Your task to perform on an android device: open a new tab in the chrome app Image 0: 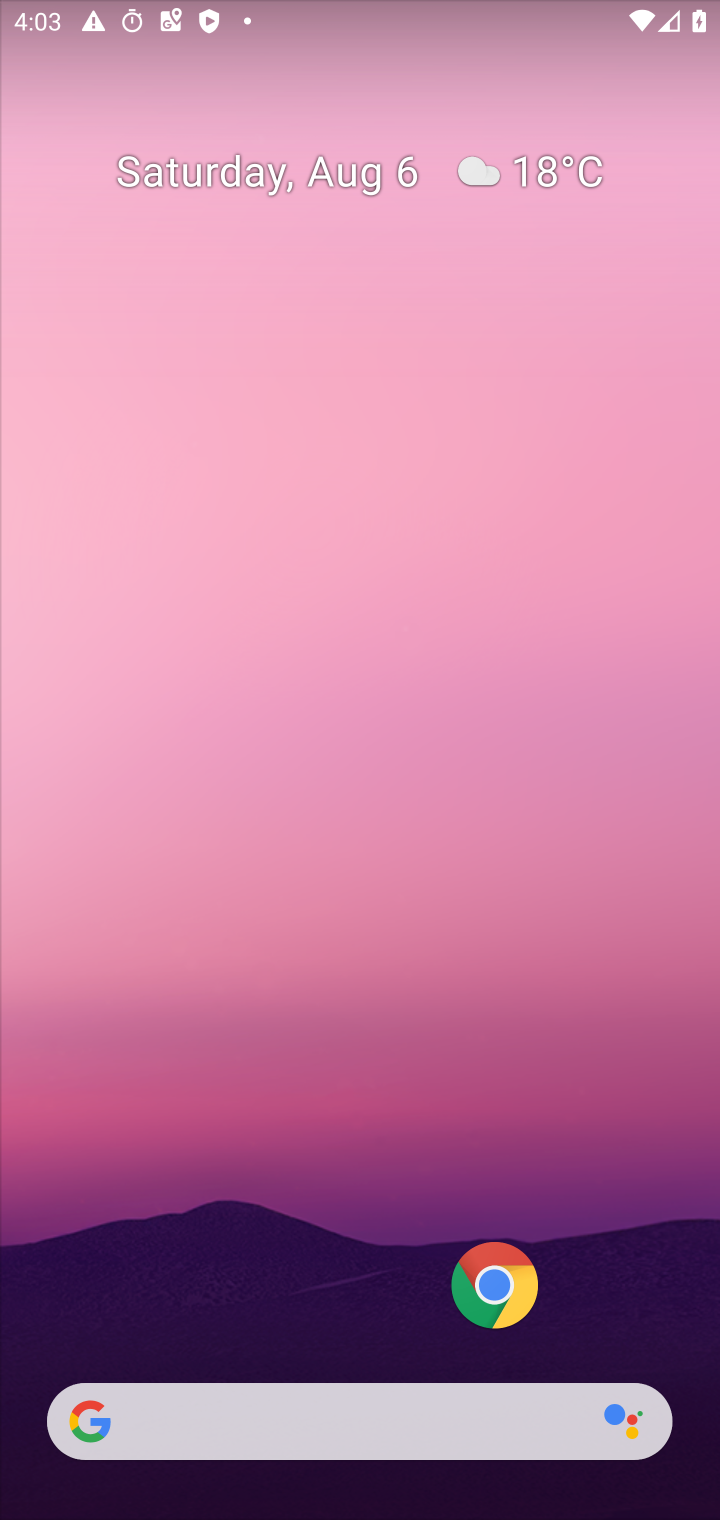
Step 0: click (494, 1270)
Your task to perform on an android device: open a new tab in the chrome app Image 1: 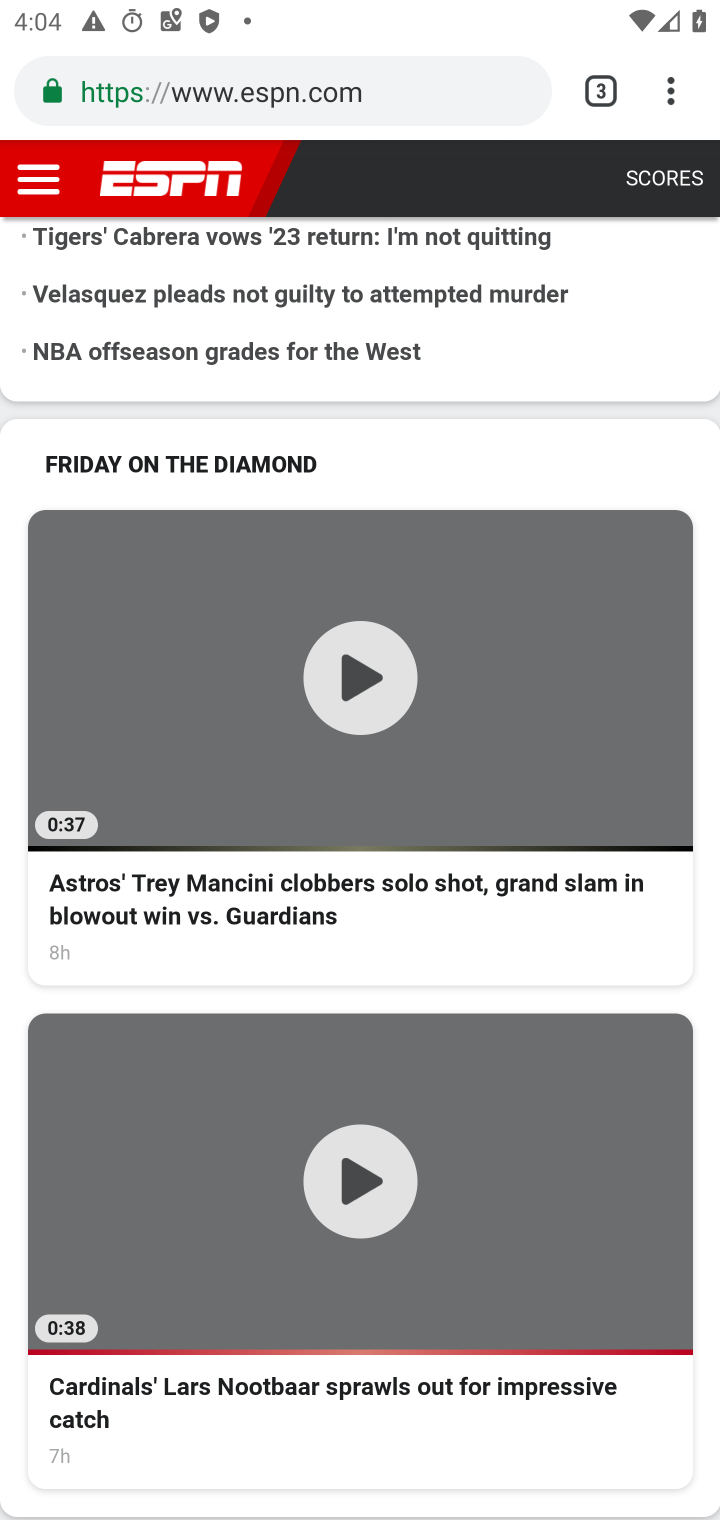
Step 1: click (610, 89)
Your task to perform on an android device: open a new tab in the chrome app Image 2: 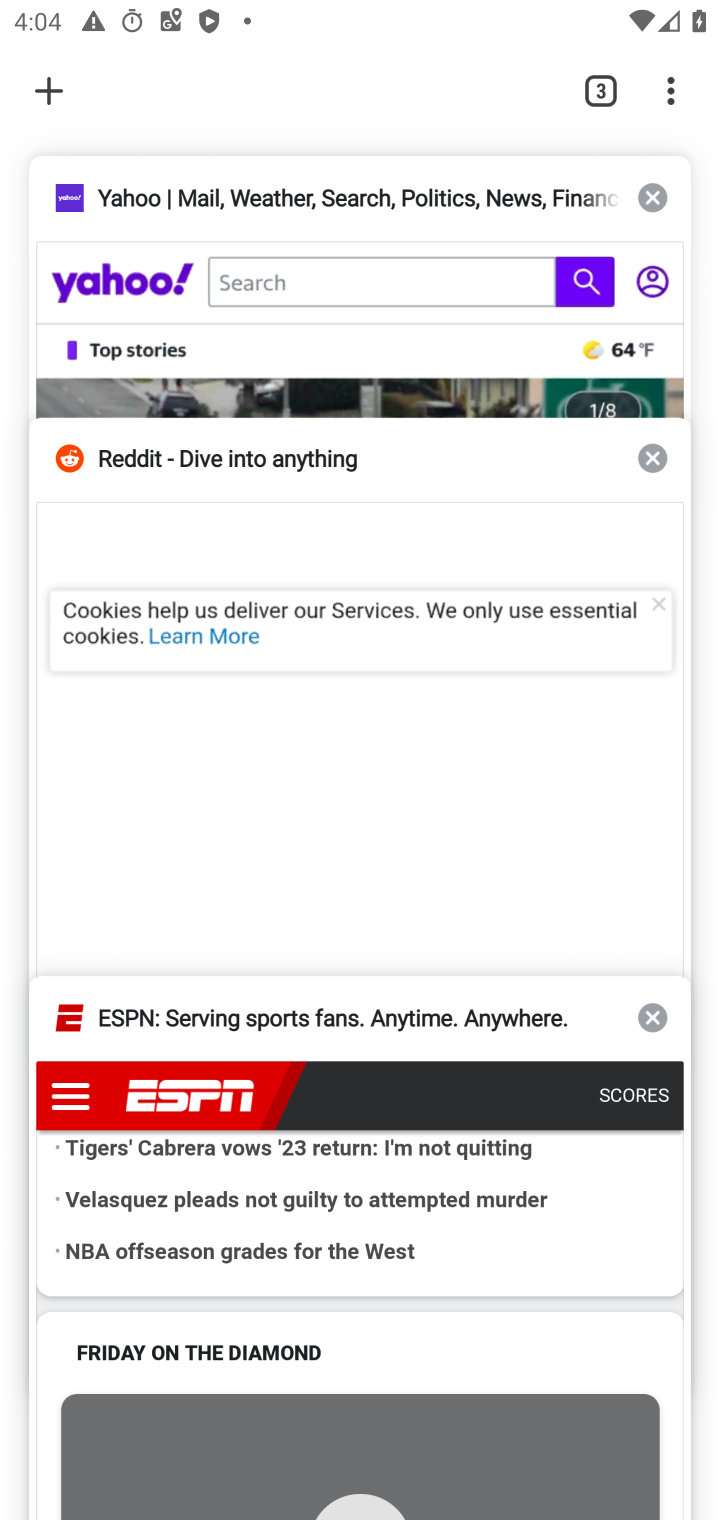
Step 2: click (52, 97)
Your task to perform on an android device: open a new tab in the chrome app Image 3: 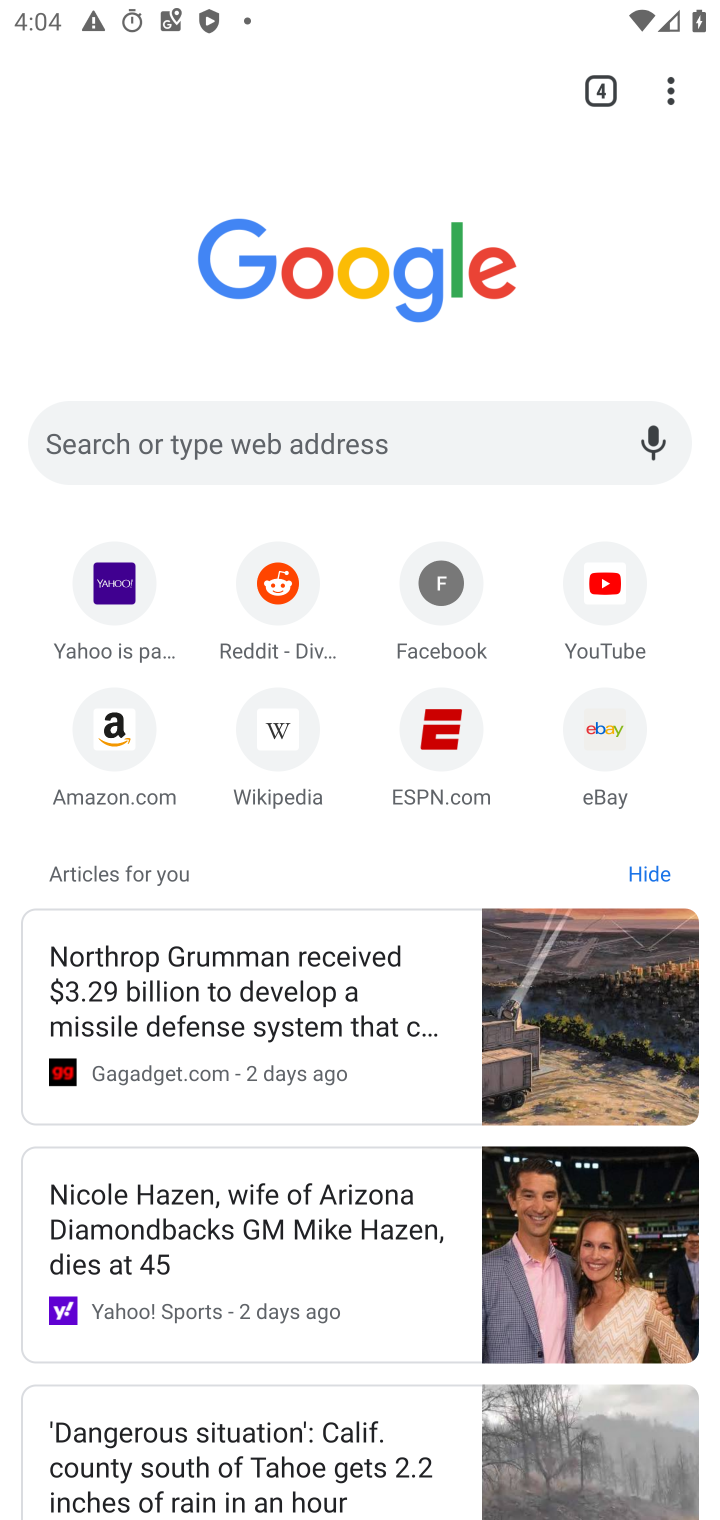
Step 3: task complete